Your task to perform on an android device: show emergency info Image 0: 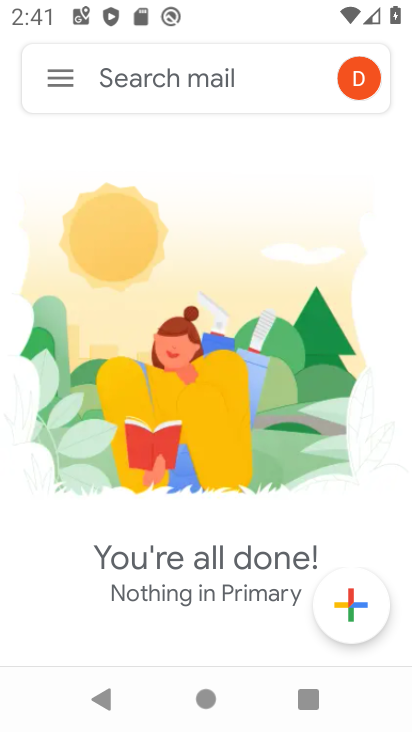
Step 0: press home button
Your task to perform on an android device: show emergency info Image 1: 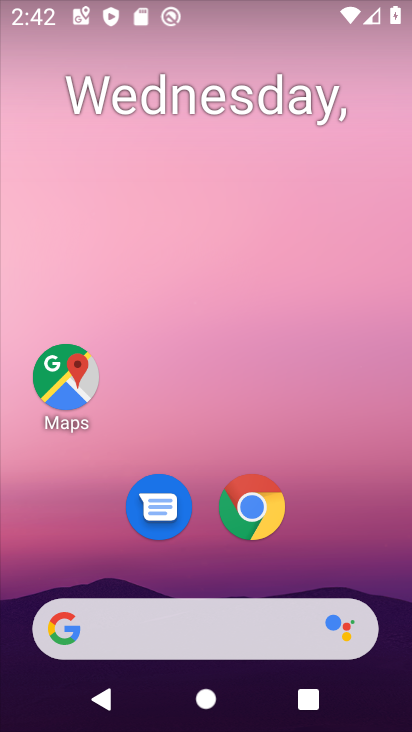
Step 1: drag from (339, 522) to (325, 126)
Your task to perform on an android device: show emergency info Image 2: 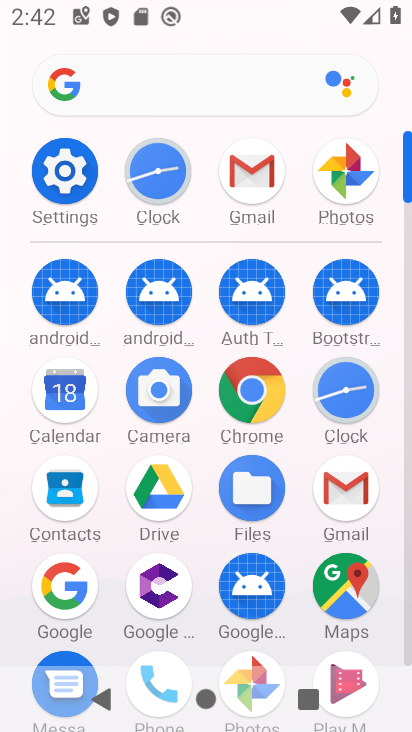
Step 2: click (80, 181)
Your task to perform on an android device: show emergency info Image 3: 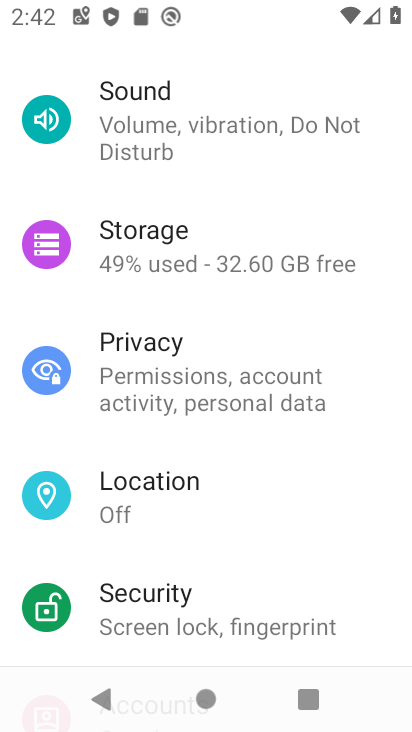
Step 3: drag from (270, 209) to (268, 562)
Your task to perform on an android device: show emergency info Image 4: 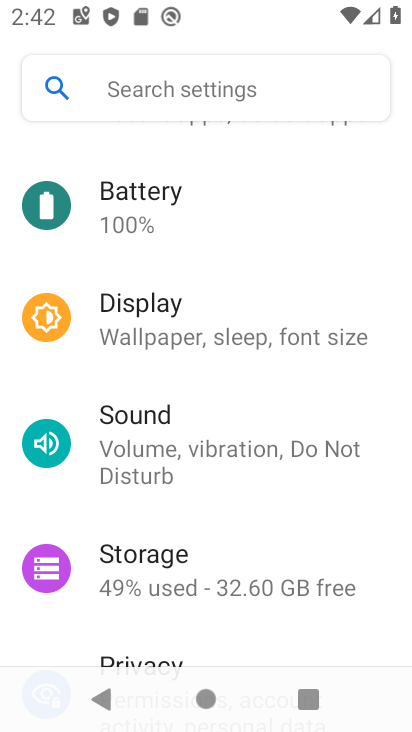
Step 4: drag from (259, 268) to (249, 526)
Your task to perform on an android device: show emergency info Image 5: 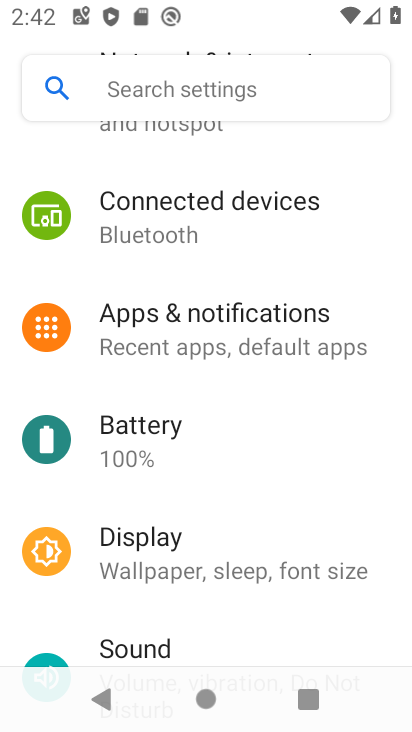
Step 5: drag from (228, 228) to (233, 469)
Your task to perform on an android device: show emergency info Image 6: 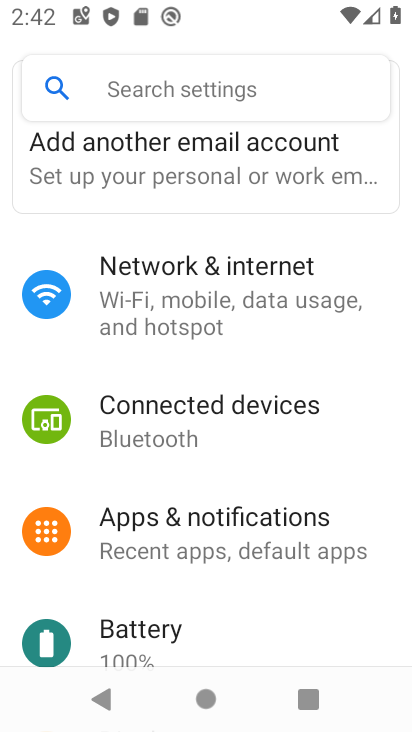
Step 6: drag from (286, 522) to (269, 172)
Your task to perform on an android device: show emergency info Image 7: 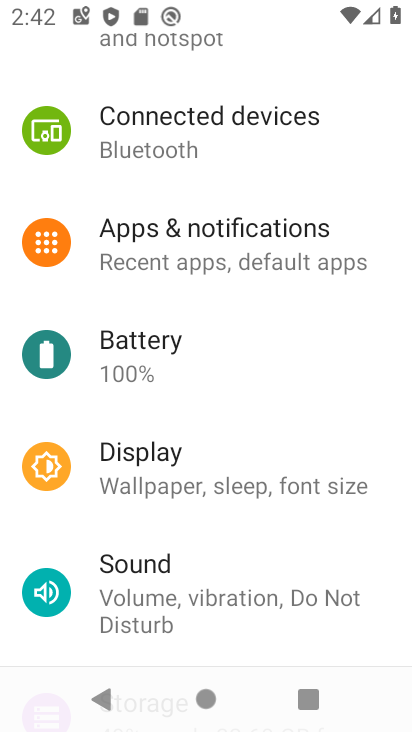
Step 7: drag from (302, 499) to (305, 163)
Your task to perform on an android device: show emergency info Image 8: 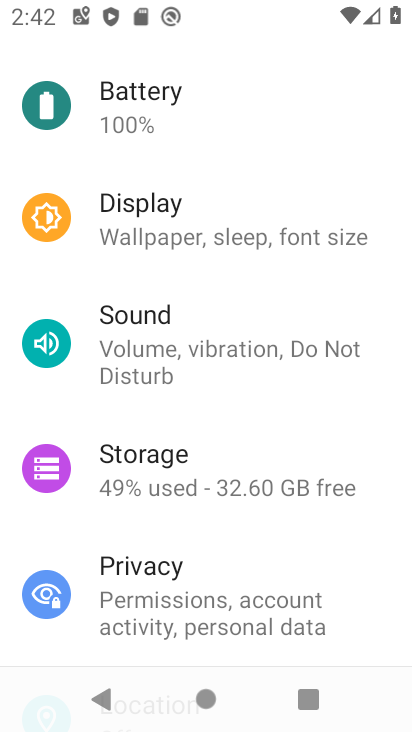
Step 8: drag from (306, 574) to (311, 180)
Your task to perform on an android device: show emergency info Image 9: 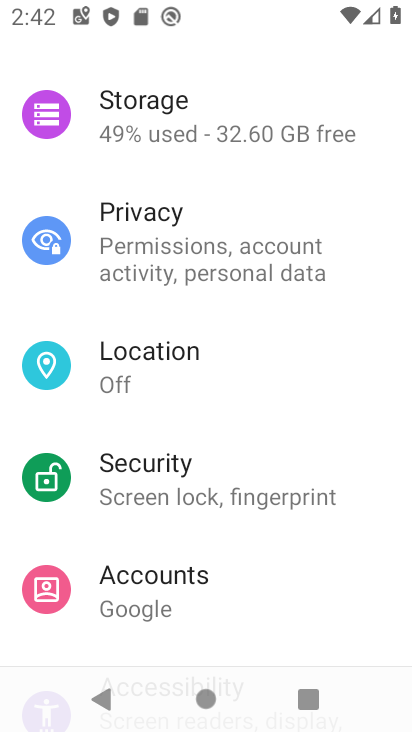
Step 9: drag from (273, 551) to (302, 232)
Your task to perform on an android device: show emergency info Image 10: 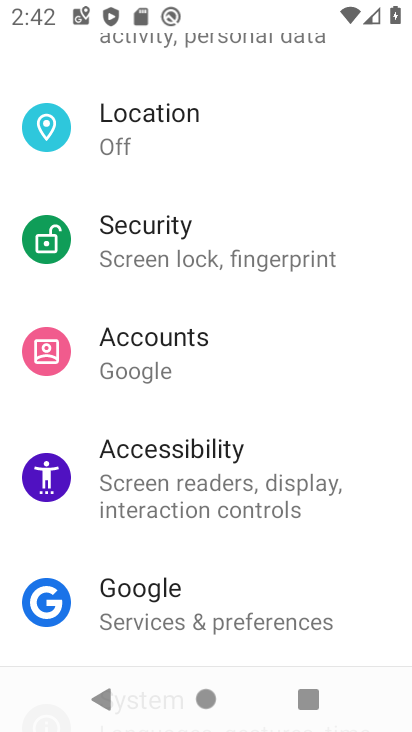
Step 10: drag from (297, 593) to (294, 270)
Your task to perform on an android device: show emergency info Image 11: 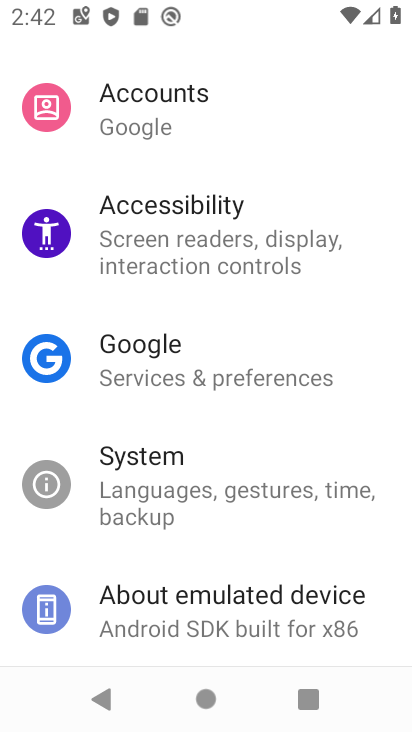
Step 11: drag from (247, 571) to (286, 324)
Your task to perform on an android device: show emergency info Image 12: 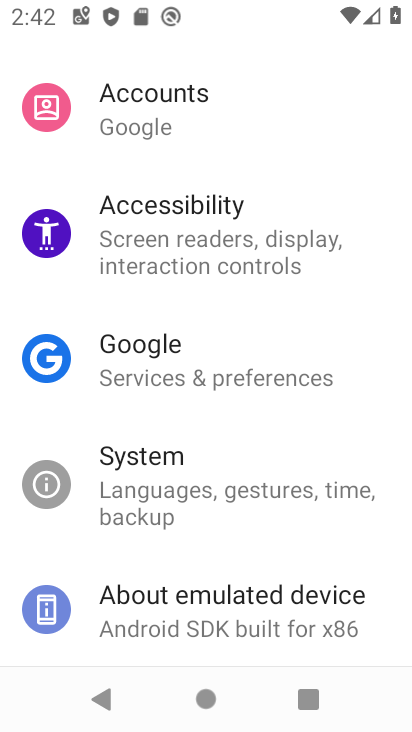
Step 12: drag from (304, 130) to (279, 549)
Your task to perform on an android device: show emergency info Image 13: 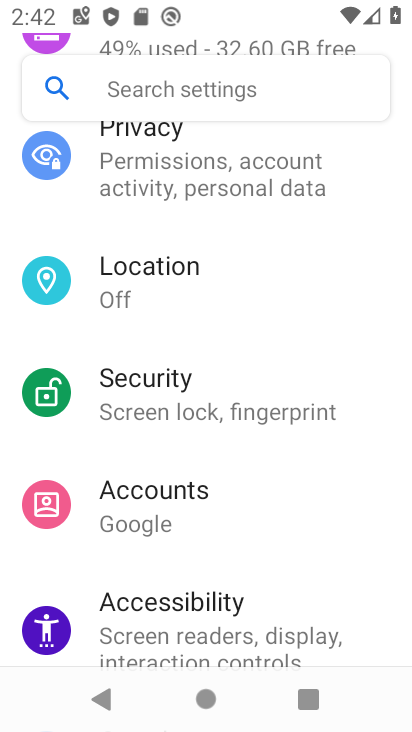
Step 13: drag from (249, 270) to (259, 483)
Your task to perform on an android device: show emergency info Image 14: 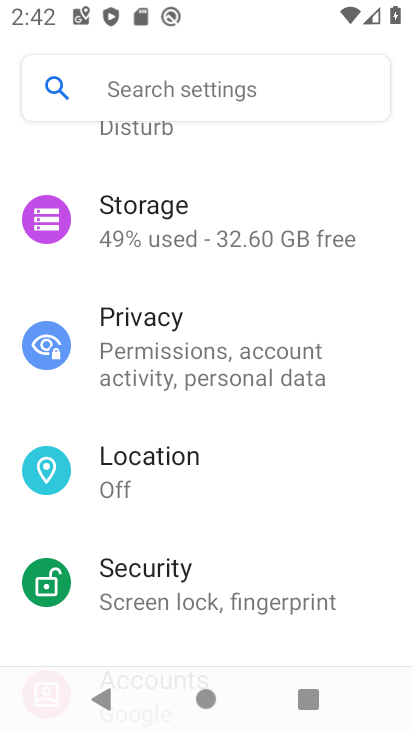
Step 14: drag from (243, 253) to (240, 483)
Your task to perform on an android device: show emergency info Image 15: 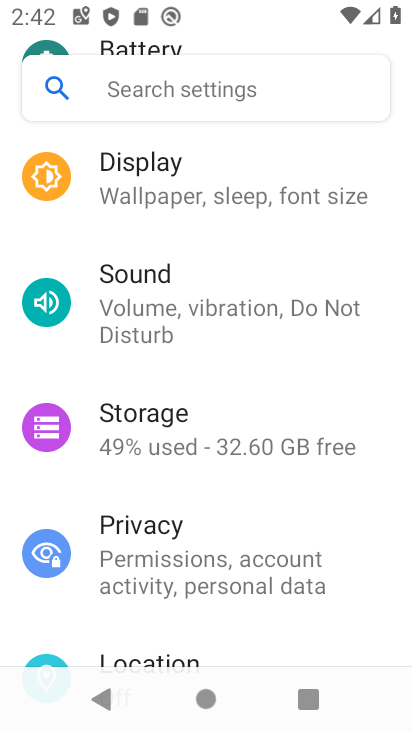
Step 15: drag from (244, 314) to (251, 478)
Your task to perform on an android device: show emergency info Image 16: 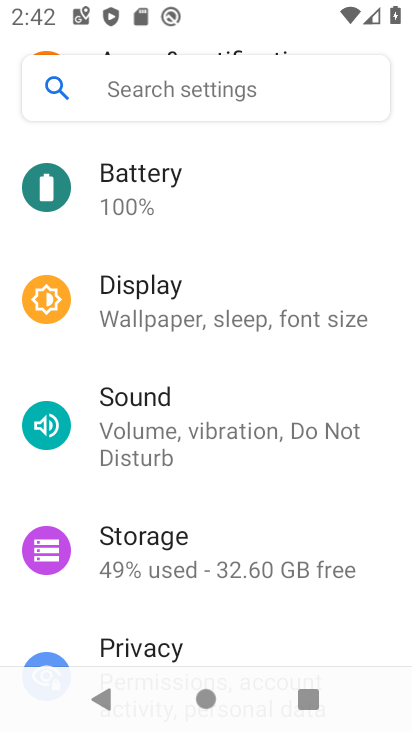
Step 16: drag from (261, 224) to (255, 449)
Your task to perform on an android device: show emergency info Image 17: 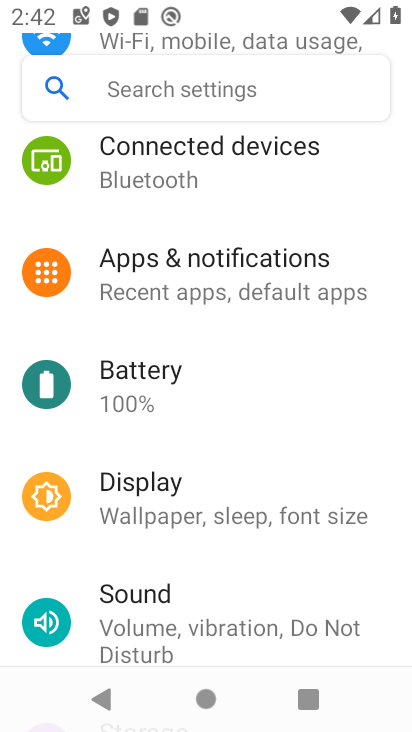
Step 17: drag from (238, 266) to (239, 510)
Your task to perform on an android device: show emergency info Image 18: 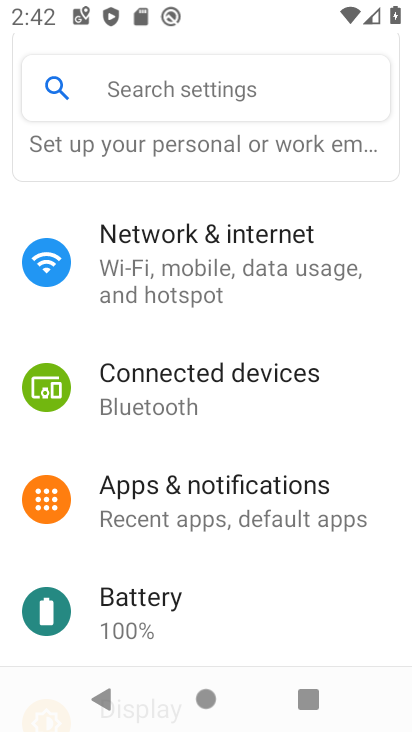
Step 18: drag from (207, 589) to (230, 215)
Your task to perform on an android device: show emergency info Image 19: 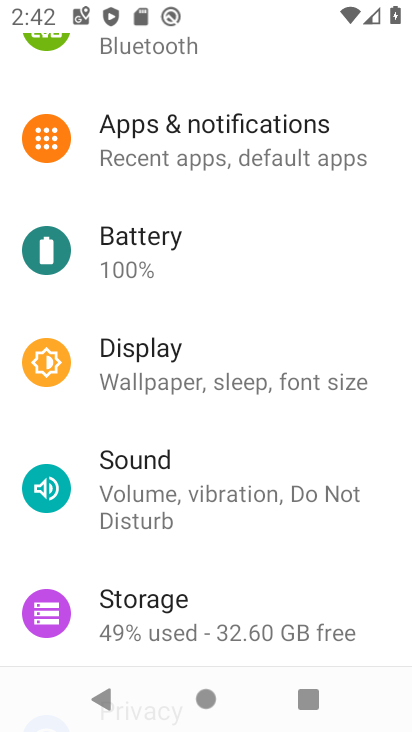
Step 19: click (155, 372)
Your task to perform on an android device: show emergency info Image 20: 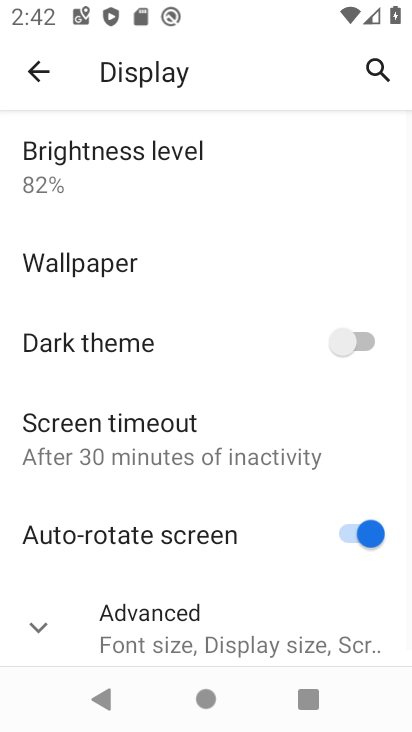
Step 20: drag from (193, 566) to (189, 255)
Your task to perform on an android device: show emergency info Image 21: 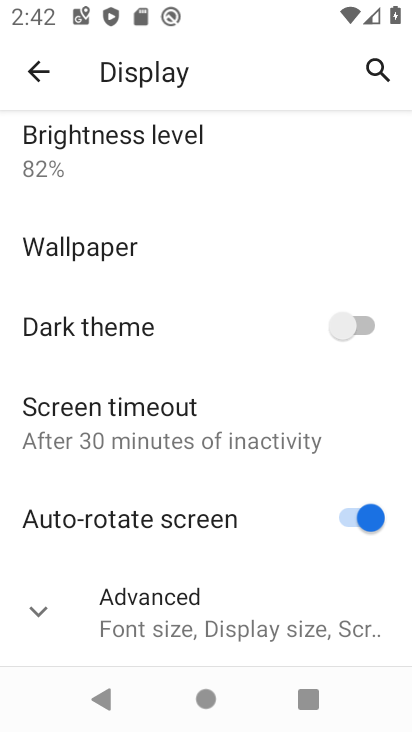
Step 21: click (194, 612)
Your task to perform on an android device: show emergency info Image 22: 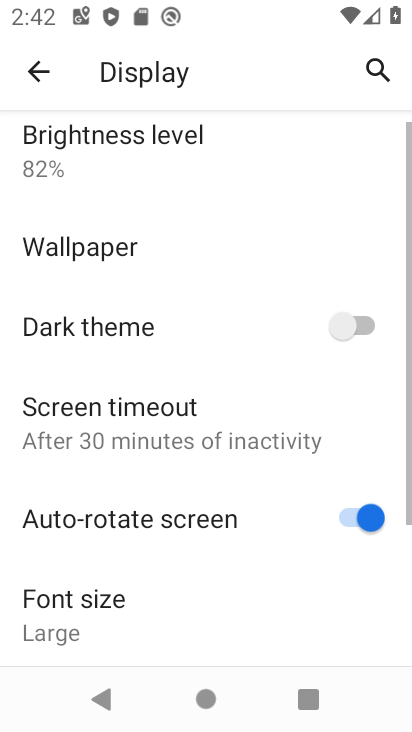
Step 22: task complete